Your task to perform on an android device: Add usb-b to the cart on walmart.com Image 0: 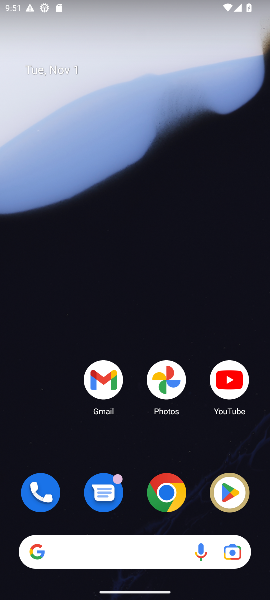
Step 0: press home button
Your task to perform on an android device: Add usb-b to the cart on walmart.com Image 1: 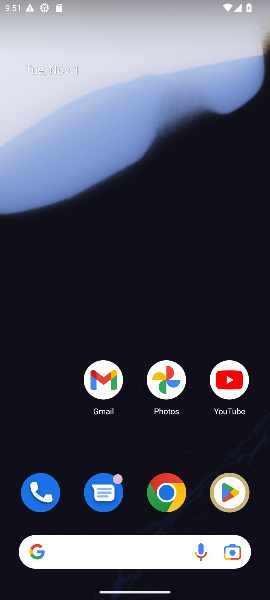
Step 1: click (162, 498)
Your task to perform on an android device: Add usb-b to the cart on walmart.com Image 2: 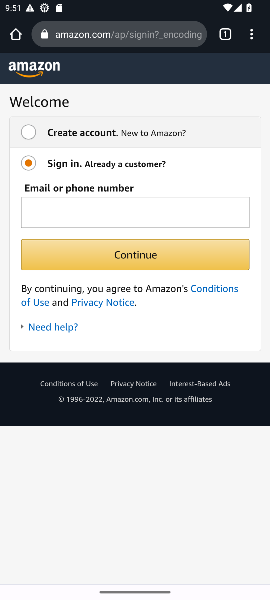
Step 2: click (91, 39)
Your task to perform on an android device: Add usb-b to the cart on walmart.com Image 3: 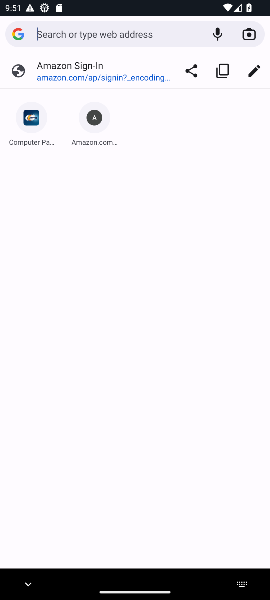
Step 3: type "walmart.com"
Your task to perform on an android device: Add usb-b to the cart on walmart.com Image 4: 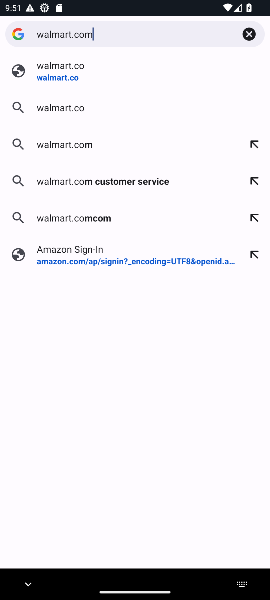
Step 4: type ""
Your task to perform on an android device: Add usb-b to the cart on walmart.com Image 5: 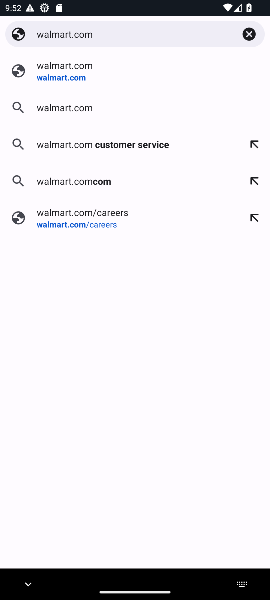
Step 5: click (56, 73)
Your task to perform on an android device: Add usb-b to the cart on walmart.com Image 6: 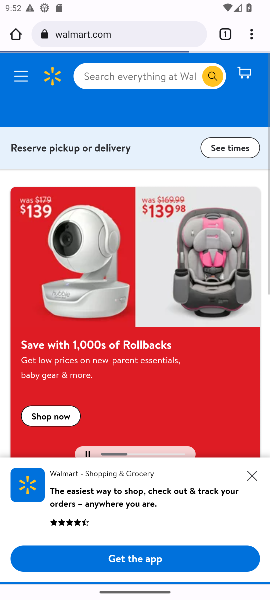
Step 6: click (152, 79)
Your task to perform on an android device: Add usb-b to the cart on walmart.com Image 7: 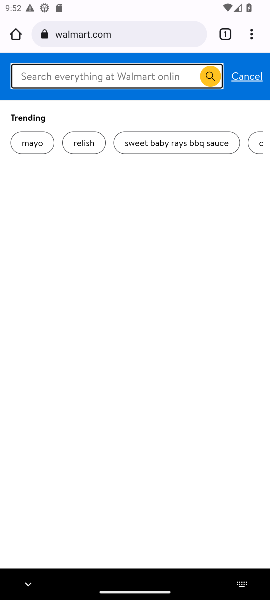
Step 7: type "usb - b"
Your task to perform on an android device: Add usb-b to the cart on walmart.com Image 8: 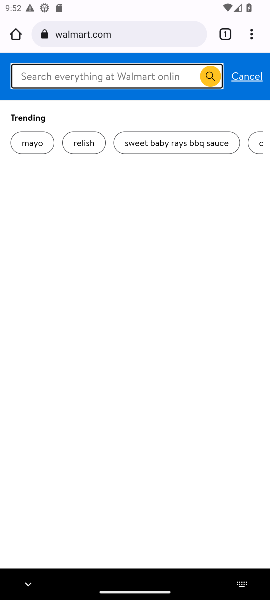
Step 8: type ""
Your task to perform on an android device: Add usb-b to the cart on walmart.com Image 9: 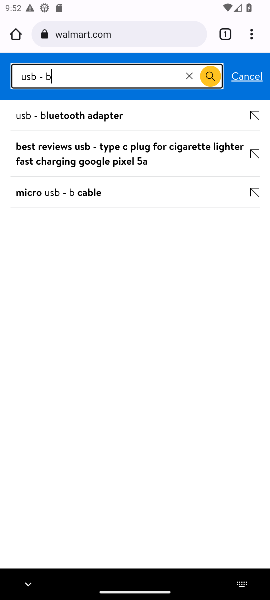
Step 9: click (76, 116)
Your task to perform on an android device: Add usb-b to the cart on walmart.com Image 10: 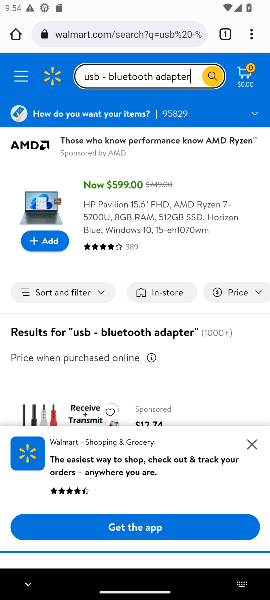
Step 10: click (250, 443)
Your task to perform on an android device: Add usb-b to the cart on walmart.com Image 11: 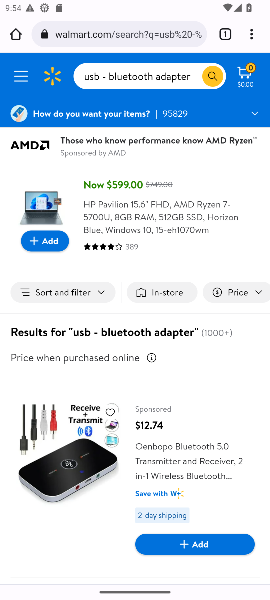
Step 11: drag from (112, 493) to (139, 147)
Your task to perform on an android device: Add usb-b to the cart on walmart.com Image 12: 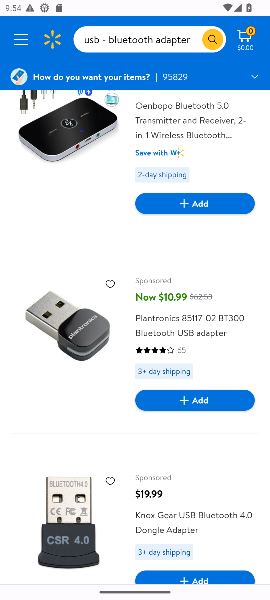
Step 12: drag from (133, 533) to (175, 141)
Your task to perform on an android device: Add usb-b to the cart on walmart.com Image 13: 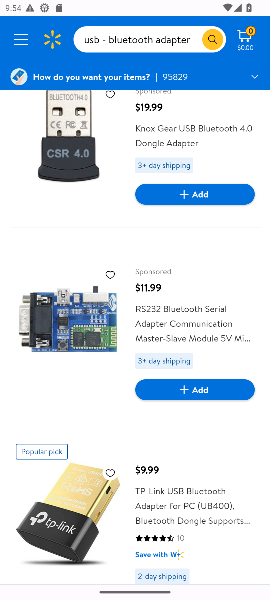
Step 13: click (177, 536)
Your task to perform on an android device: Add usb-b to the cart on walmart.com Image 14: 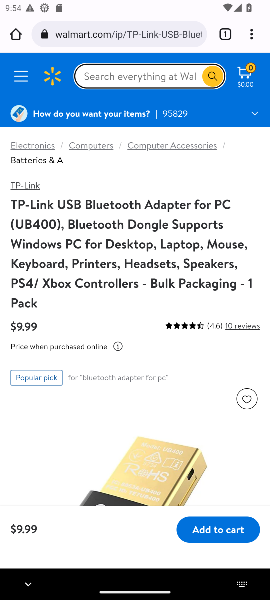
Step 14: drag from (99, 445) to (133, 158)
Your task to perform on an android device: Add usb-b to the cart on walmart.com Image 15: 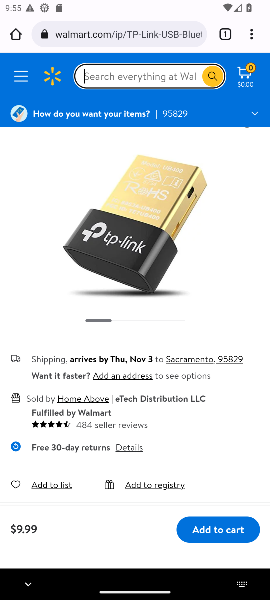
Step 15: click (223, 523)
Your task to perform on an android device: Add usb-b to the cart on walmart.com Image 16: 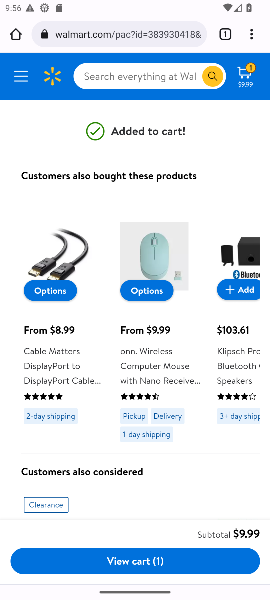
Step 16: task complete